Your task to perform on an android device: Open Wikipedia Image 0: 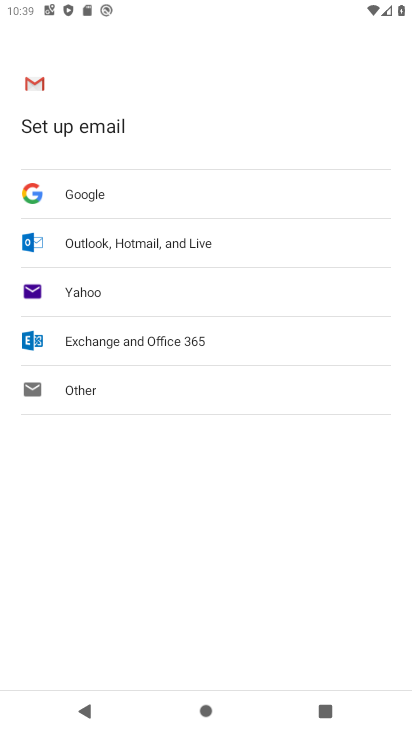
Step 0: press home button
Your task to perform on an android device: Open Wikipedia Image 1: 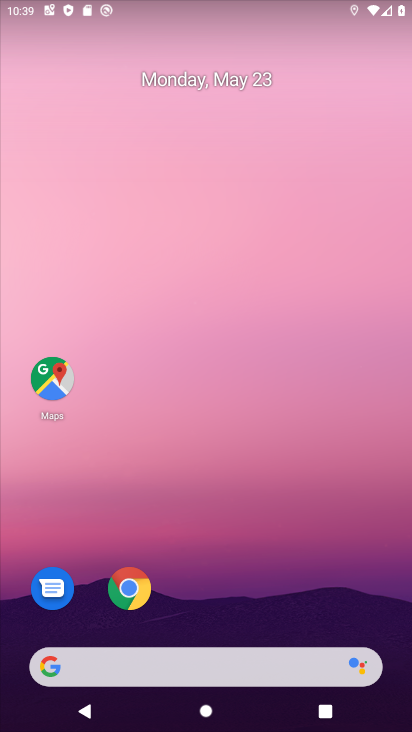
Step 1: click (127, 592)
Your task to perform on an android device: Open Wikipedia Image 2: 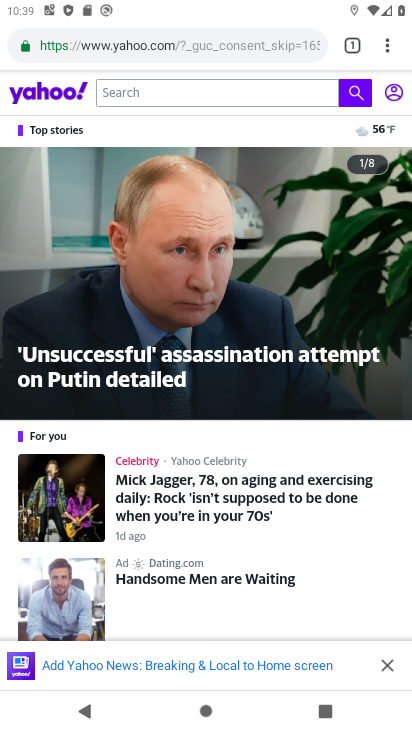
Step 2: click (195, 45)
Your task to perform on an android device: Open Wikipedia Image 3: 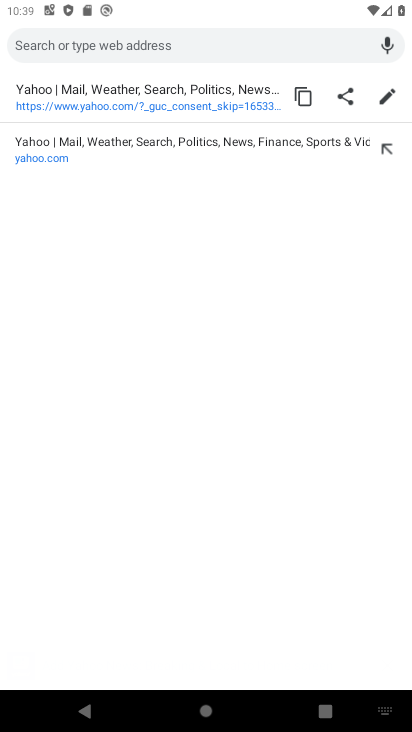
Step 3: type "wikipedia"
Your task to perform on an android device: Open Wikipedia Image 4: 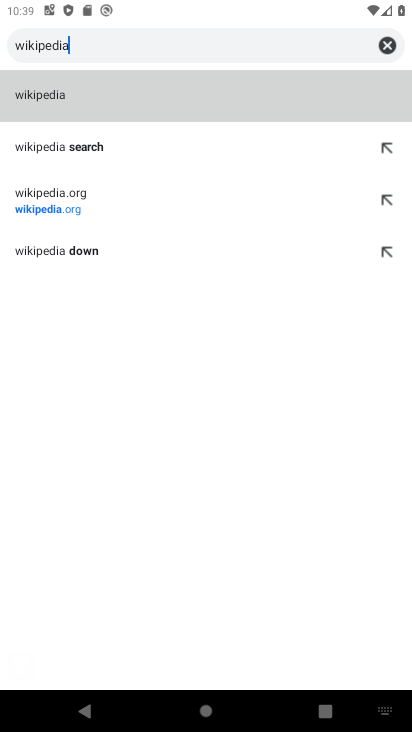
Step 4: click (44, 206)
Your task to perform on an android device: Open Wikipedia Image 5: 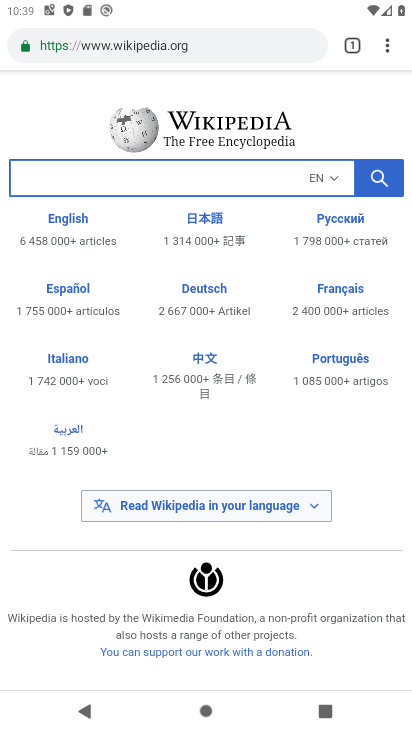
Step 5: task complete